Your task to perform on an android device: Open Chrome and go to settings Image 0: 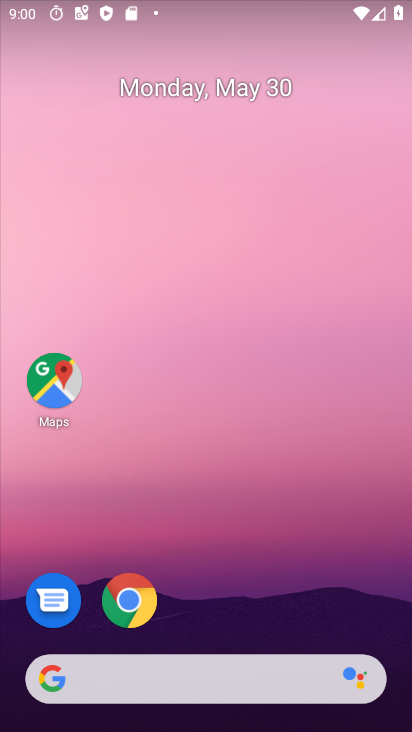
Step 0: drag from (273, 570) to (252, 67)
Your task to perform on an android device: Open Chrome and go to settings Image 1: 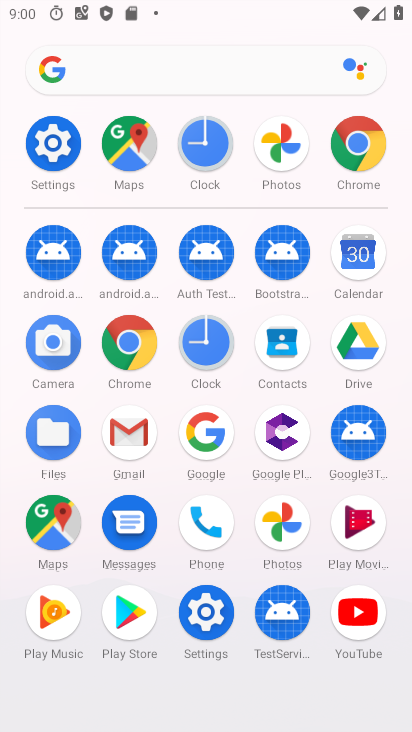
Step 1: drag from (8, 591) to (4, 262)
Your task to perform on an android device: Open Chrome and go to settings Image 2: 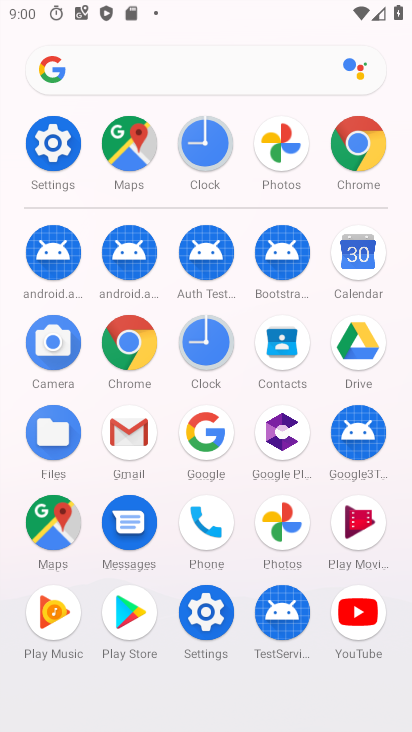
Step 2: click (123, 336)
Your task to perform on an android device: Open Chrome and go to settings Image 3: 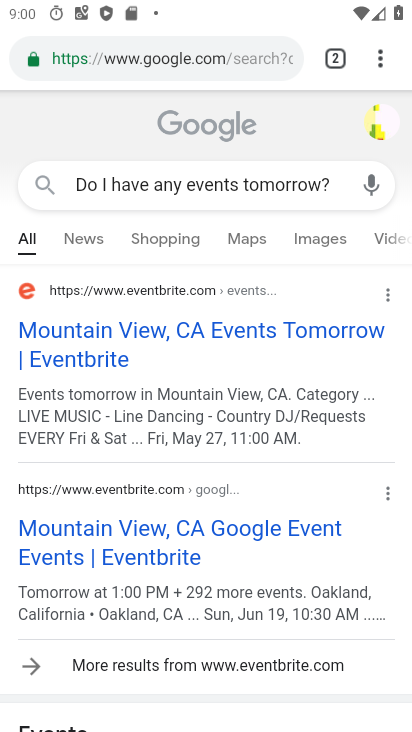
Step 3: task complete